Your task to perform on an android device: Open Google Chrome and click the shortcut for Amazon.com Image 0: 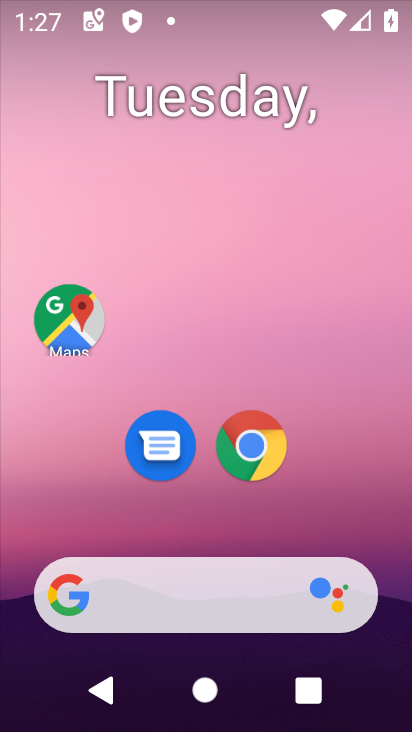
Step 0: drag from (335, 455) to (289, 132)
Your task to perform on an android device: Open Google Chrome and click the shortcut for Amazon.com Image 1: 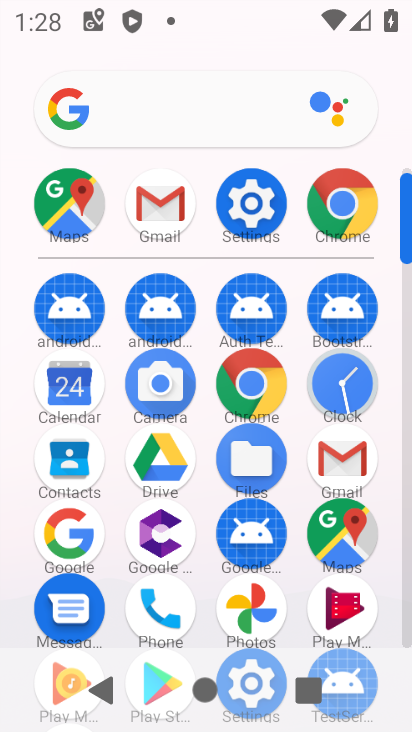
Step 1: click (345, 189)
Your task to perform on an android device: Open Google Chrome and click the shortcut for Amazon.com Image 2: 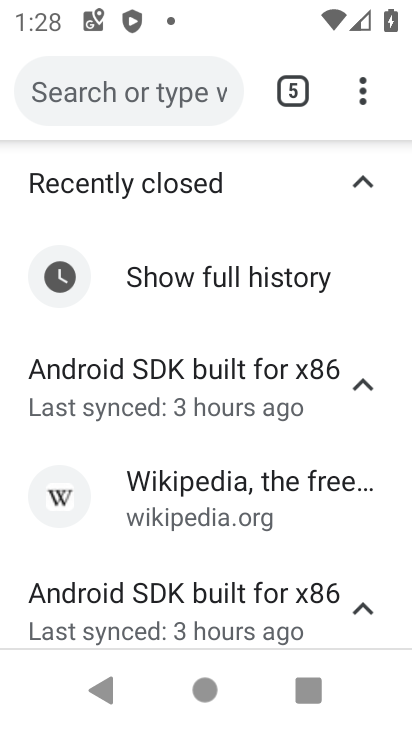
Step 2: click (186, 83)
Your task to perform on an android device: Open Google Chrome and click the shortcut for Amazon.com Image 3: 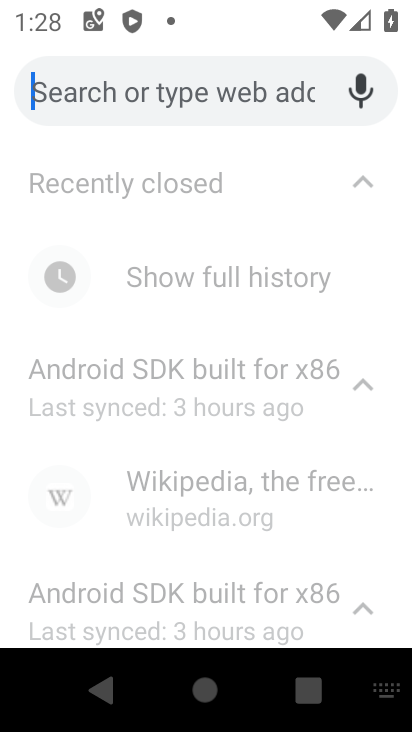
Step 3: type "amazon"
Your task to perform on an android device: Open Google Chrome and click the shortcut for Amazon.com Image 4: 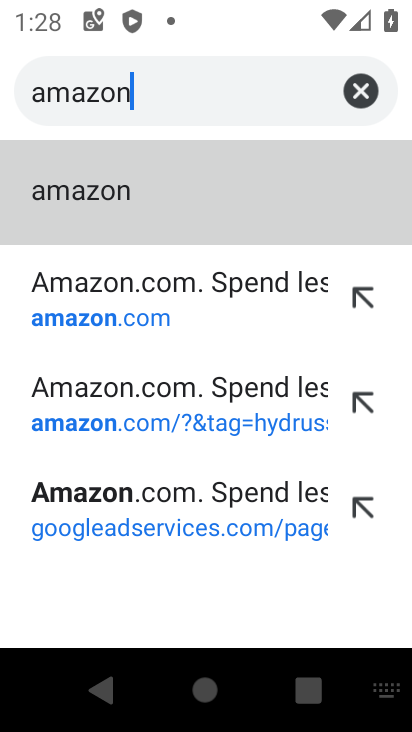
Step 4: click (138, 322)
Your task to perform on an android device: Open Google Chrome and click the shortcut for Amazon.com Image 5: 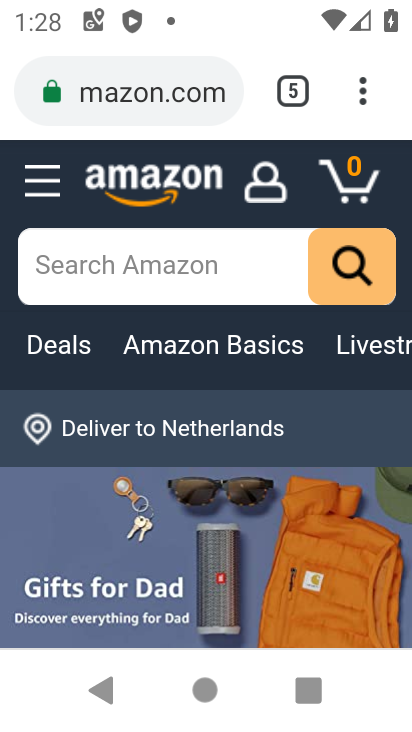
Step 5: drag from (366, 91) to (233, 318)
Your task to perform on an android device: Open Google Chrome and click the shortcut for Amazon.com Image 6: 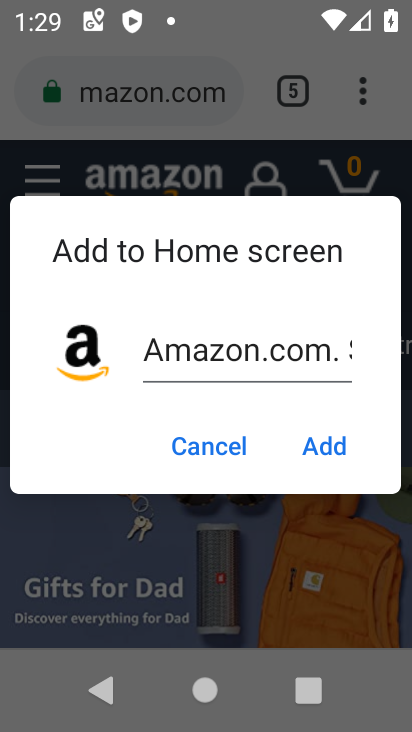
Step 6: click (306, 448)
Your task to perform on an android device: Open Google Chrome and click the shortcut for Amazon.com Image 7: 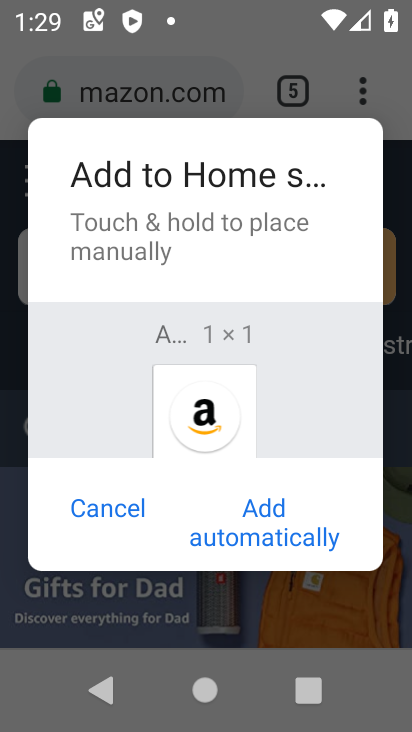
Step 7: click (316, 527)
Your task to perform on an android device: Open Google Chrome and click the shortcut for Amazon.com Image 8: 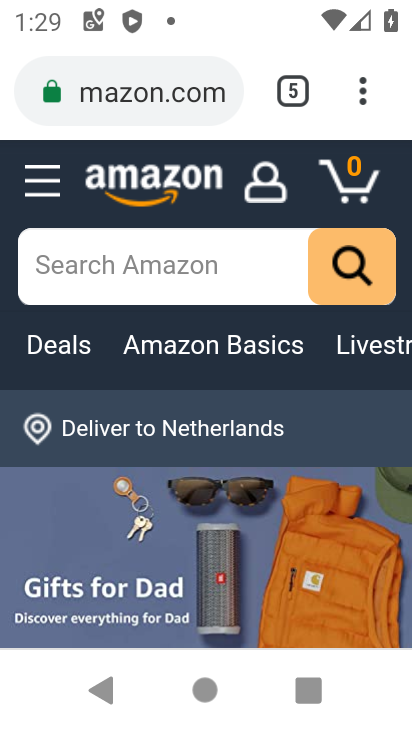
Step 8: task complete